Your task to perform on an android device: Go to battery settings Image 0: 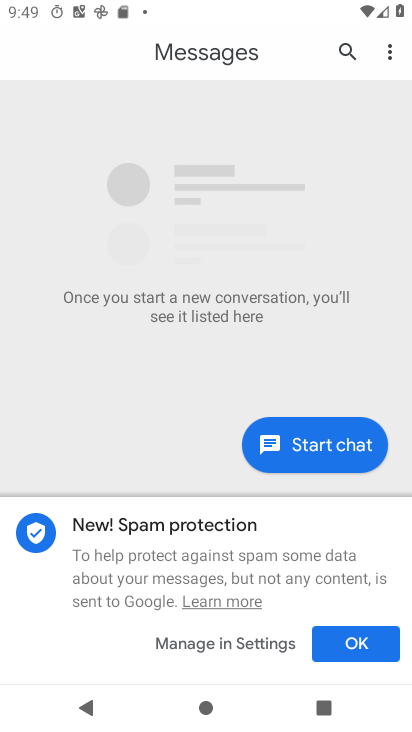
Step 0: press home button
Your task to perform on an android device: Go to battery settings Image 1: 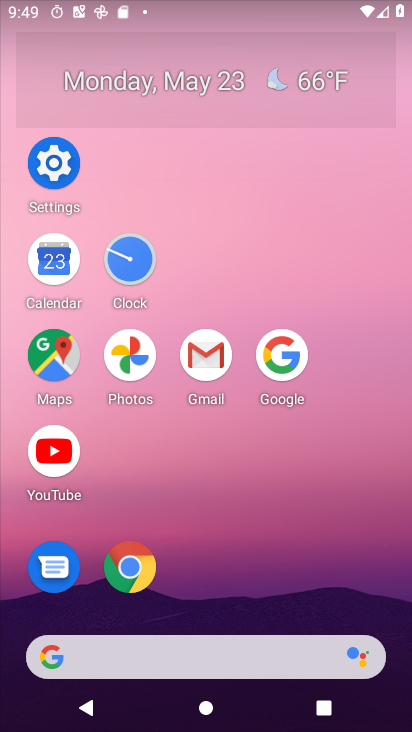
Step 1: click (47, 174)
Your task to perform on an android device: Go to battery settings Image 2: 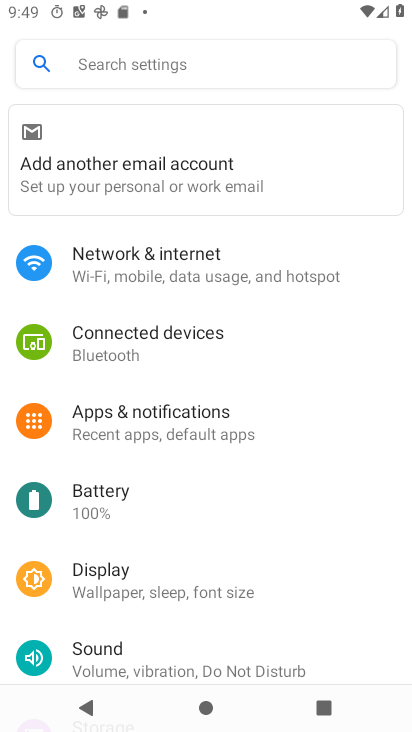
Step 2: click (106, 509)
Your task to perform on an android device: Go to battery settings Image 3: 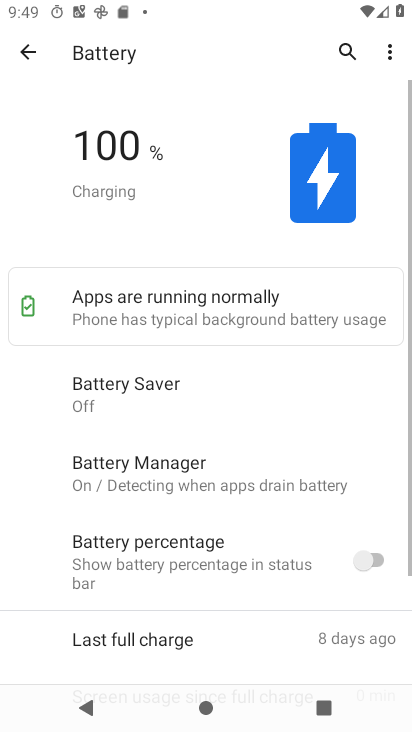
Step 3: task complete